Your task to perform on an android device: Empty the shopping cart on target.com. Add razer naga to the cart on target.com, then select checkout. Image 0: 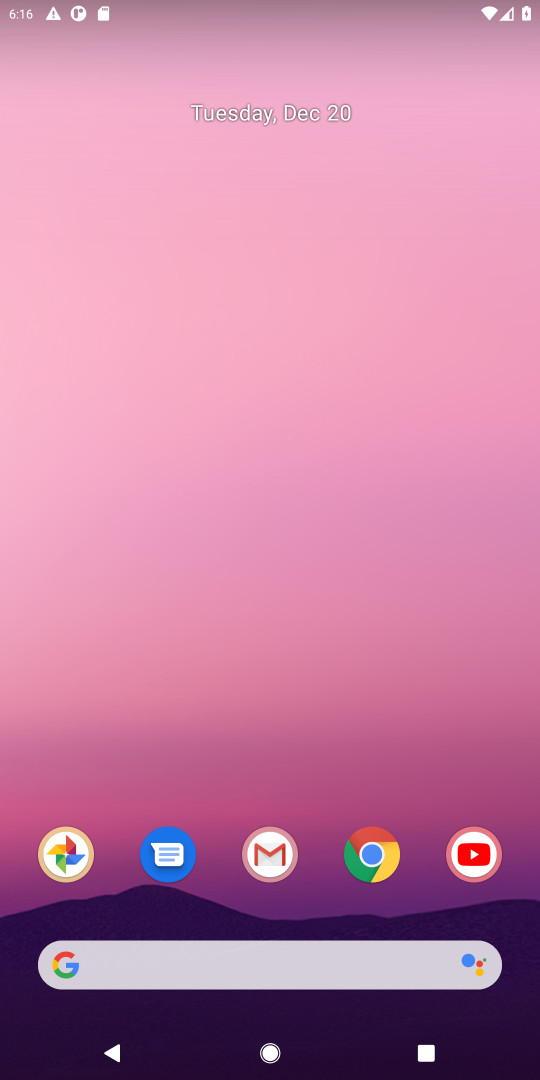
Step 0: click (371, 861)
Your task to perform on an android device: Empty the shopping cart on target.com. Add razer naga to the cart on target.com, then select checkout. Image 1: 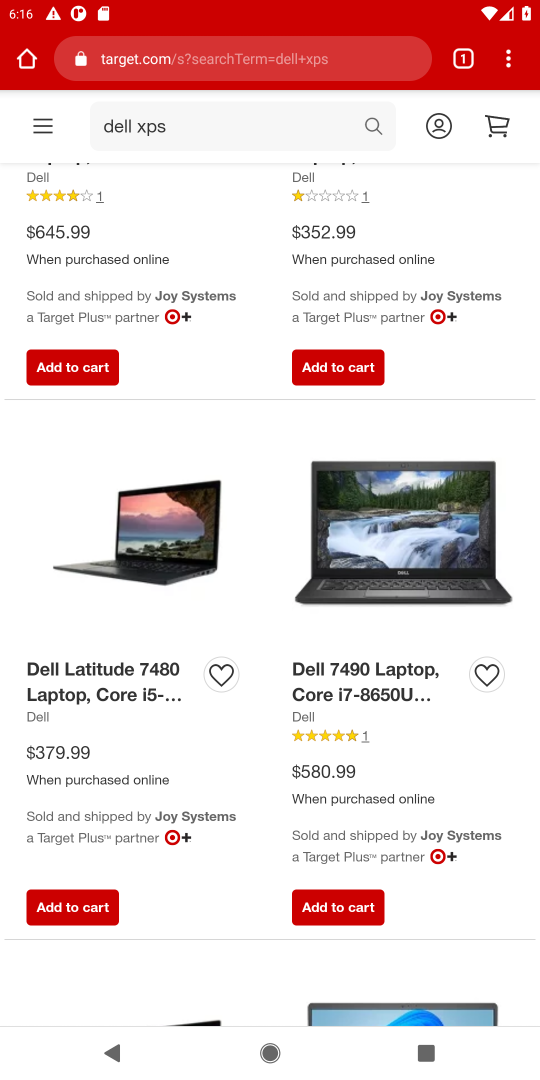
Step 1: click (497, 127)
Your task to perform on an android device: Empty the shopping cart on target.com. Add razer naga to the cart on target.com, then select checkout. Image 2: 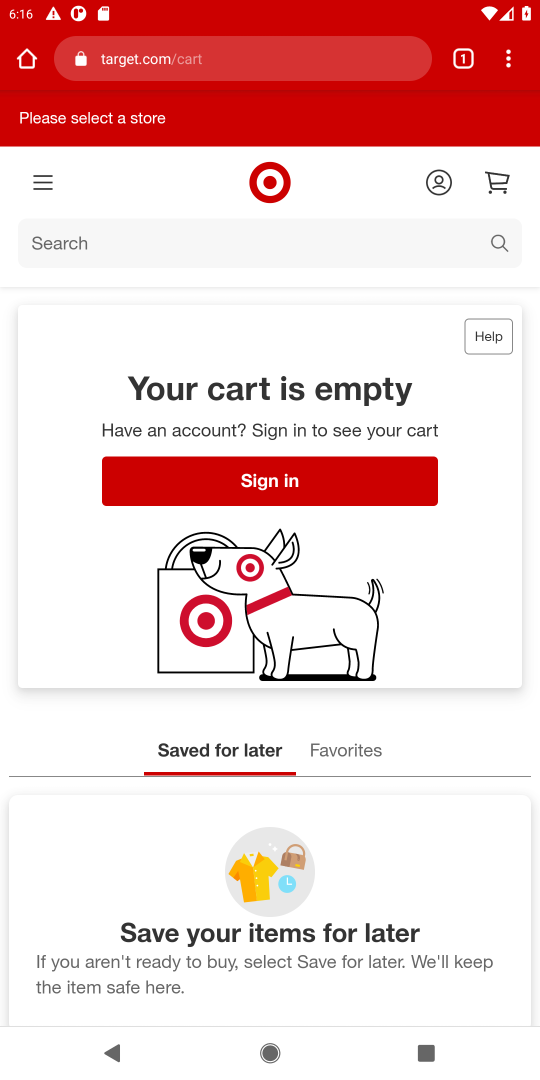
Step 2: click (64, 239)
Your task to perform on an android device: Empty the shopping cart on target.com. Add razer naga to the cart on target.com, then select checkout. Image 3: 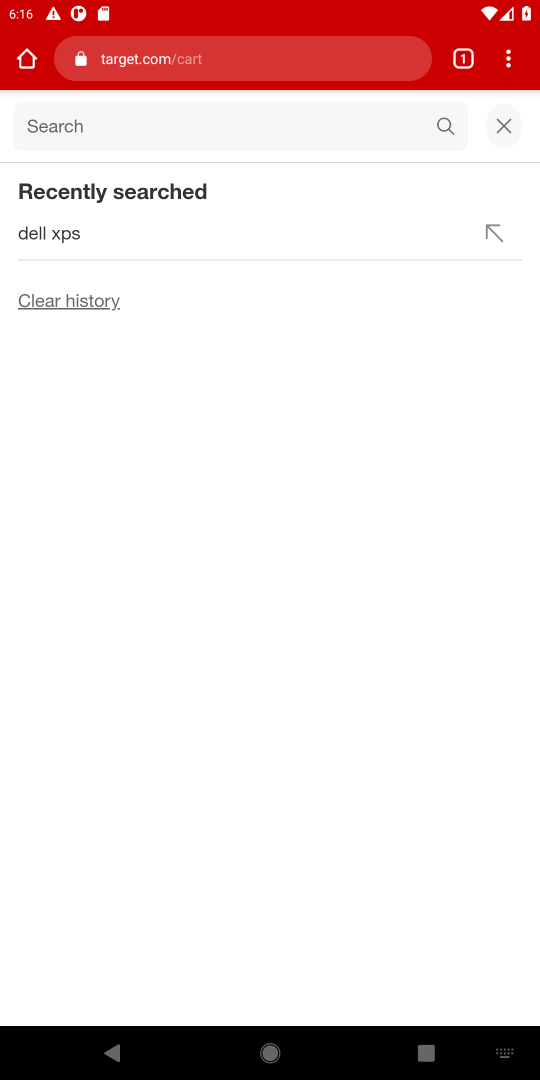
Step 3: type " razer naga "
Your task to perform on an android device: Empty the shopping cart on target.com. Add razer naga to the cart on target.com, then select checkout. Image 4: 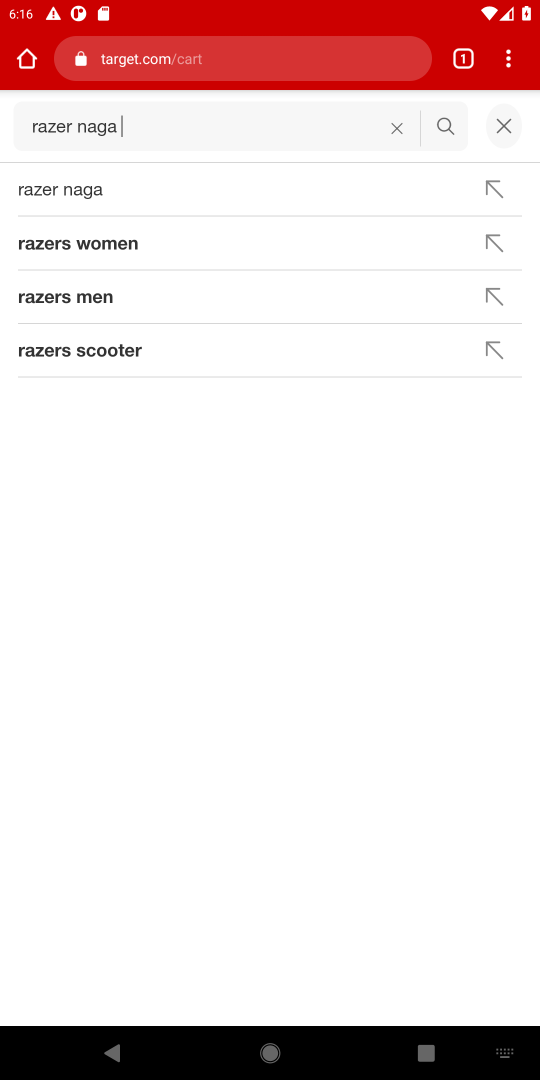
Step 4: click (70, 193)
Your task to perform on an android device: Empty the shopping cart on target.com. Add razer naga to the cart on target.com, then select checkout. Image 5: 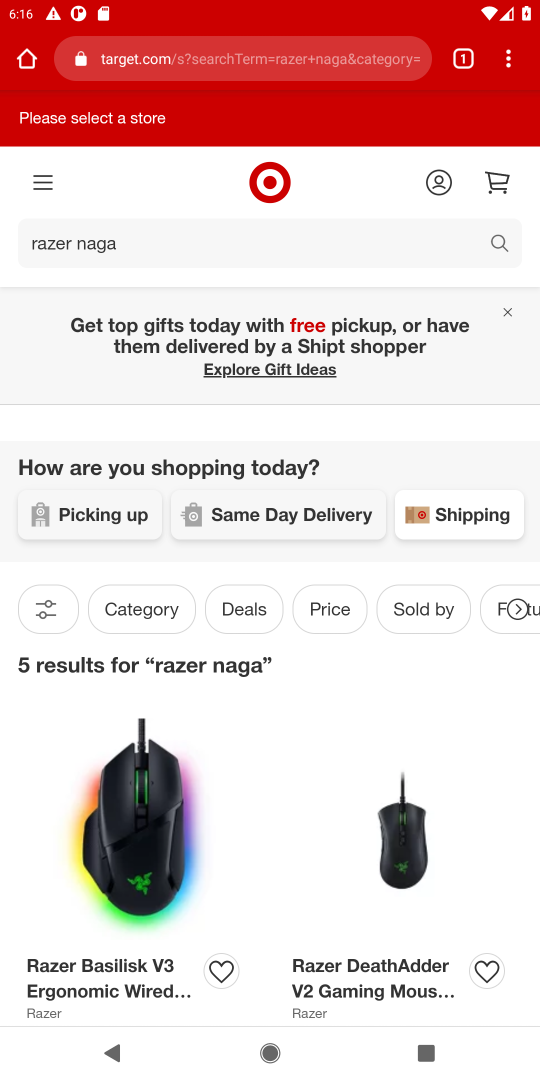
Step 5: task complete